Your task to perform on an android device: check out phone information Image 0: 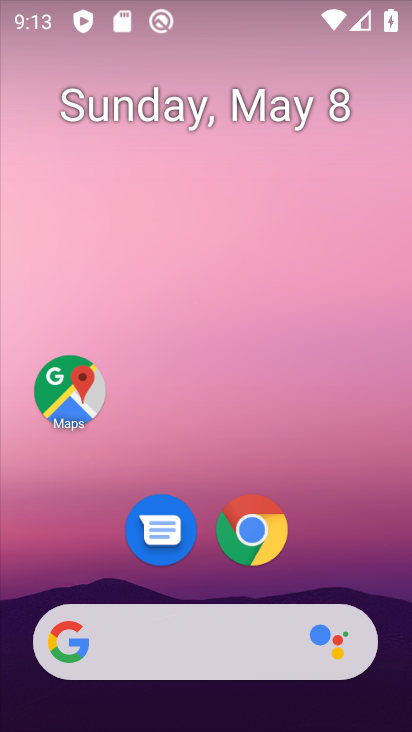
Step 0: drag from (205, 608) to (192, 256)
Your task to perform on an android device: check out phone information Image 1: 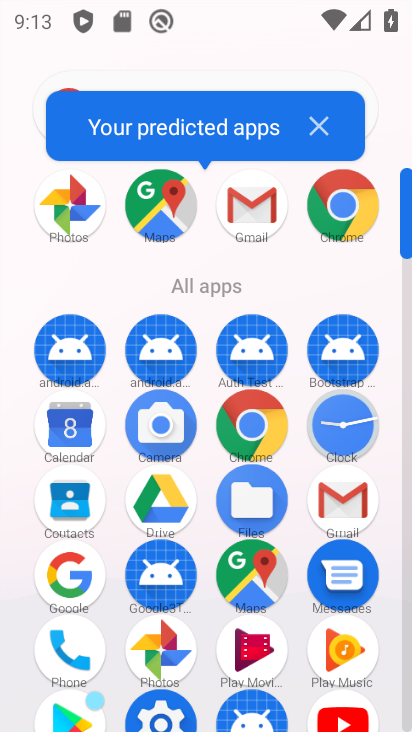
Step 1: click (76, 657)
Your task to perform on an android device: check out phone information Image 2: 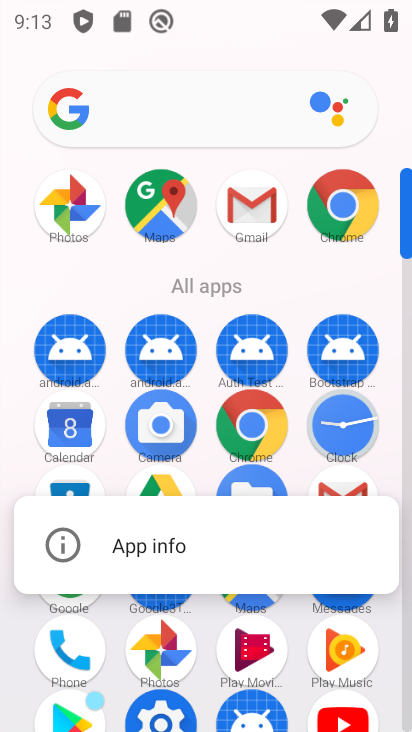
Step 2: click (114, 540)
Your task to perform on an android device: check out phone information Image 3: 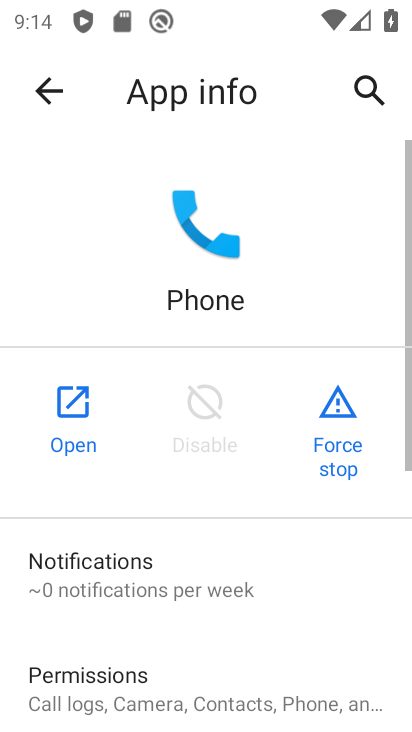
Step 3: drag from (168, 714) to (144, 426)
Your task to perform on an android device: check out phone information Image 4: 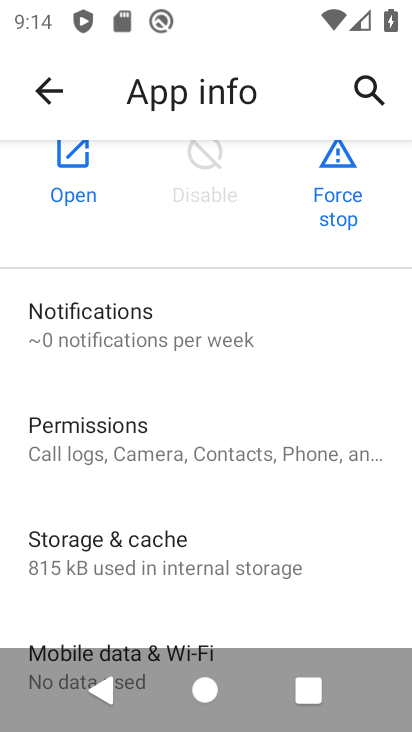
Step 4: drag from (133, 613) to (167, 241)
Your task to perform on an android device: check out phone information Image 5: 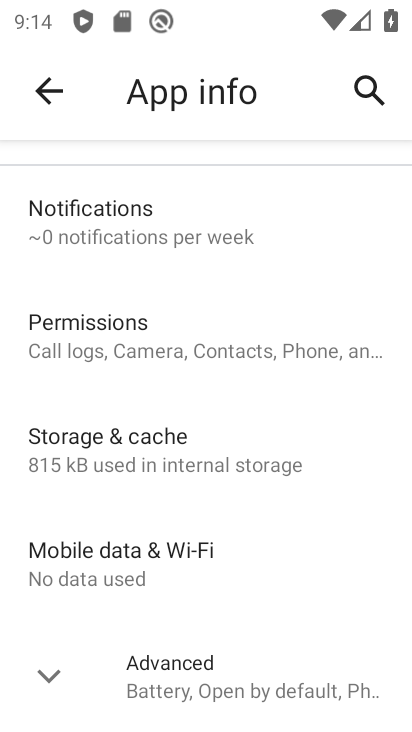
Step 5: drag from (120, 582) to (120, 233)
Your task to perform on an android device: check out phone information Image 6: 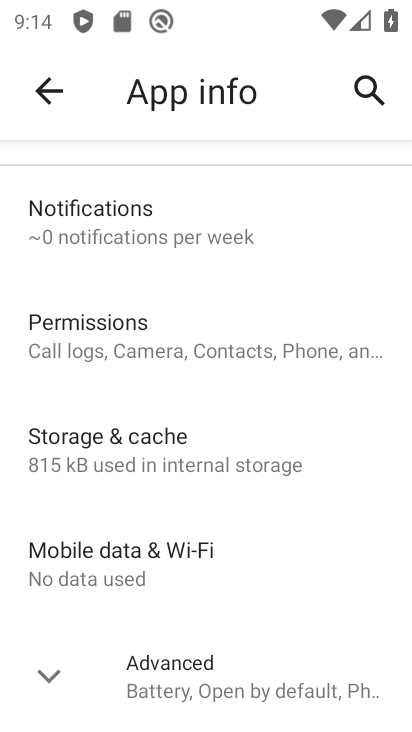
Step 6: click (197, 670)
Your task to perform on an android device: check out phone information Image 7: 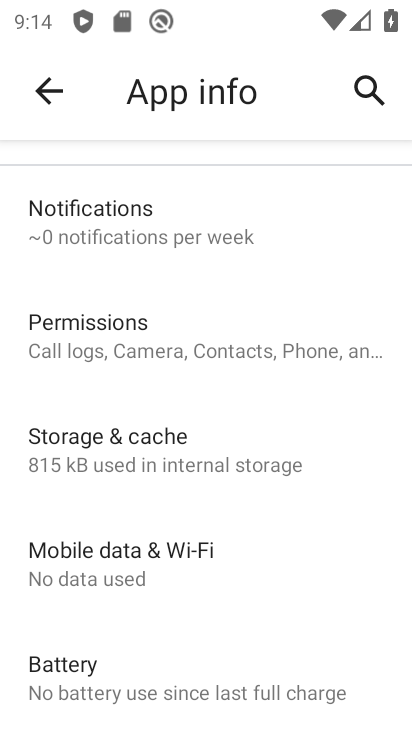
Step 7: task complete